Your task to perform on an android device: turn off improve location accuracy Image 0: 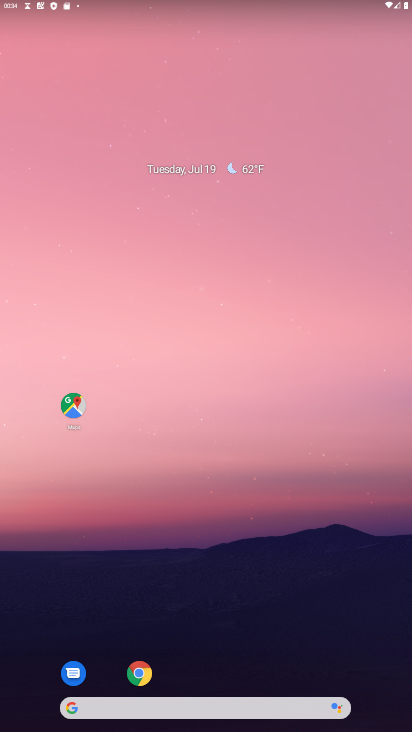
Step 0: drag from (291, 509) to (264, 358)
Your task to perform on an android device: turn off improve location accuracy Image 1: 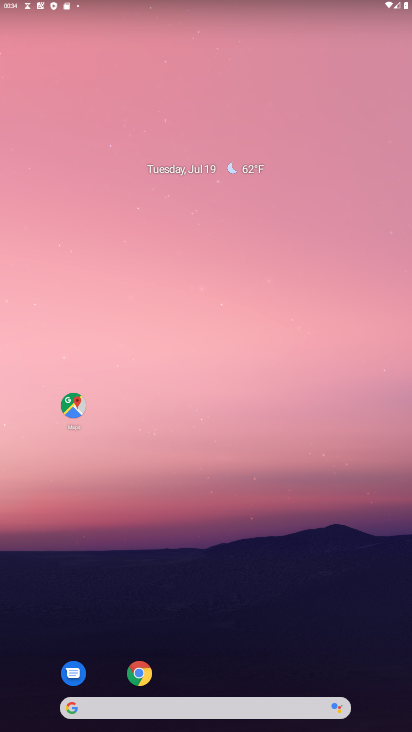
Step 1: drag from (192, 671) to (209, 251)
Your task to perform on an android device: turn off improve location accuracy Image 2: 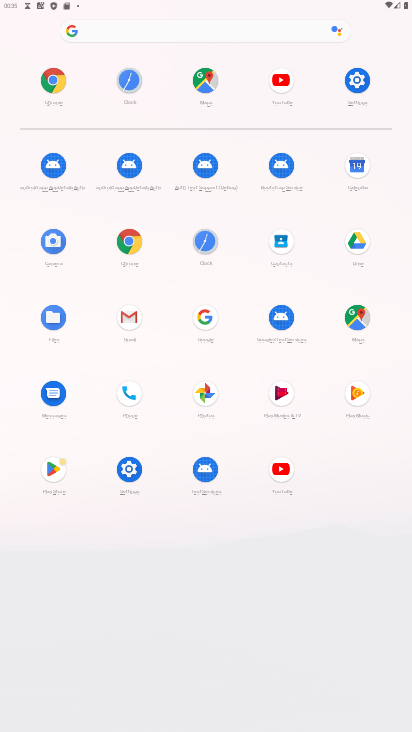
Step 2: click (352, 77)
Your task to perform on an android device: turn off improve location accuracy Image 3: 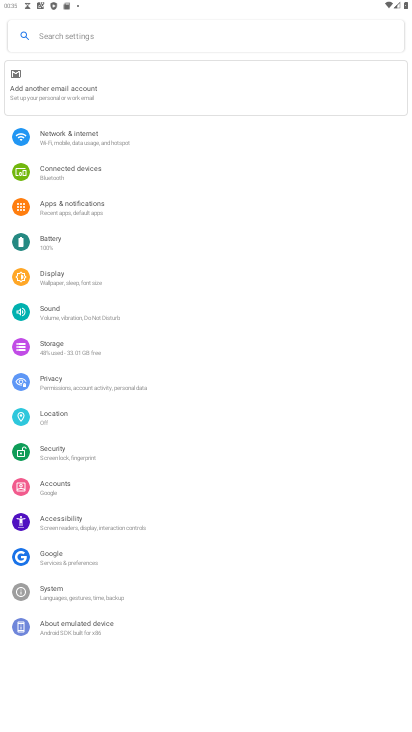
Step 3: click (55, 413)
Your task to perform on an android device: turn off improve location accuracy Image 4: 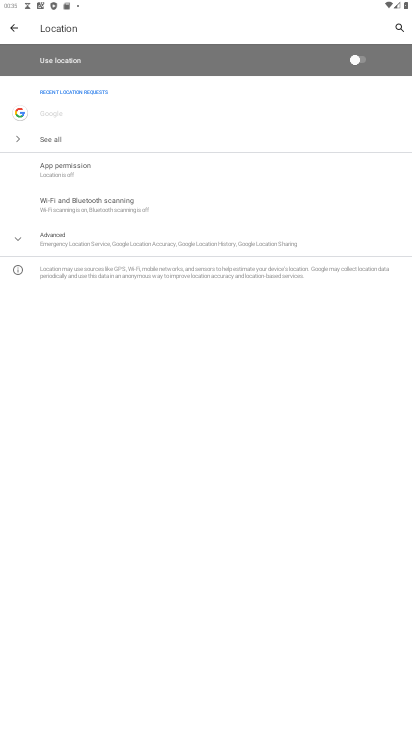
Step 4: click (185, 231)
Your task to perform on an android device: turn off improve location accuracy Image 5: 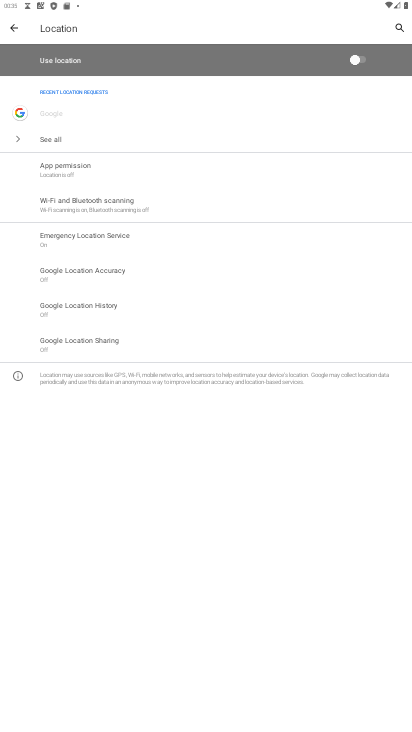
Step 5: click (122, 278)
Your task to perform on an android device: turn off improve location accuracy Image 6: 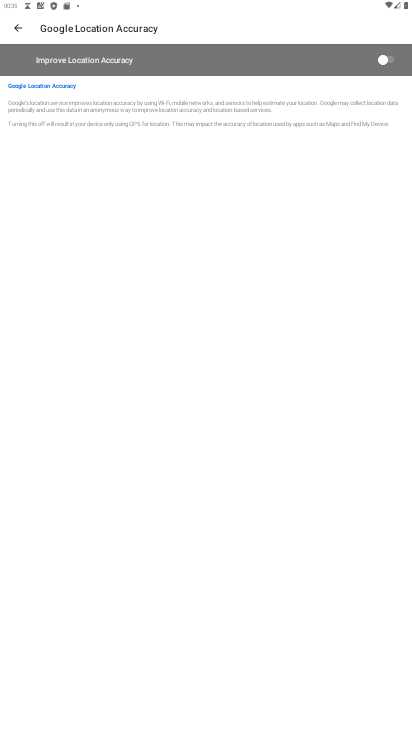
Step 6: task complete